Your task to perform on an android device: Open Wikipedia Image 0: 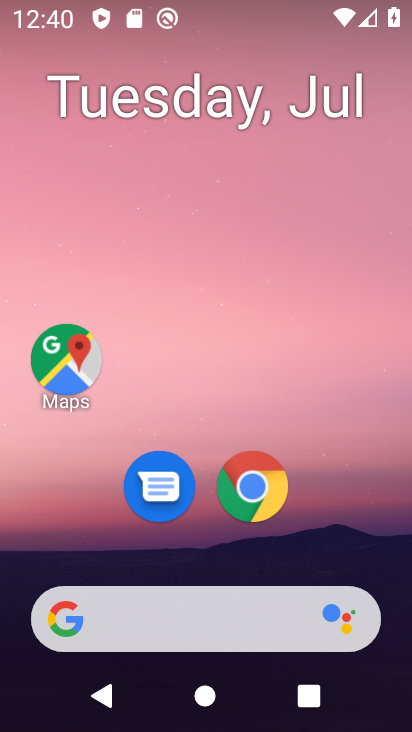
Step 0: drag from (372, 459) to (375, 83)
Your task to perform on an android device: Open Wikipedia Image 1: 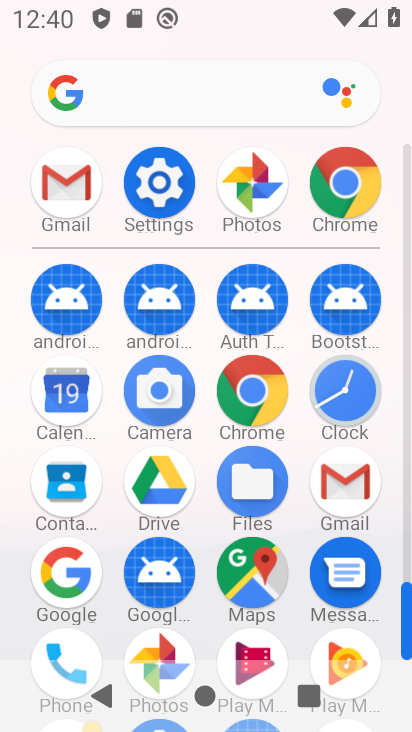
Step 1: click (271, 394)
Your task to perform on an android device: Open Wikipedia Image 2: 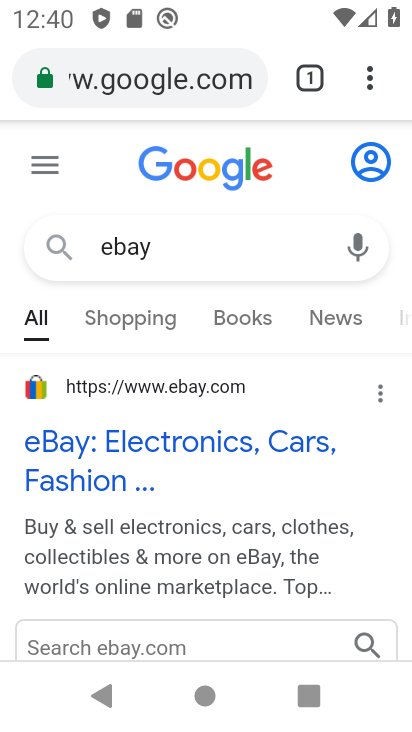
Step 2: click (192, 80)
Your task to perform on an android device: Open Wikipedia Image 3: 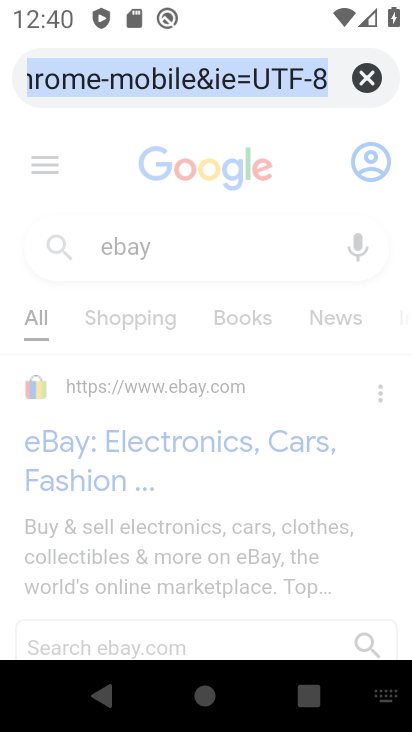
Step 3: type "wikipedia"
Your task to perform on an android device: Open Wikipedia Image 4: 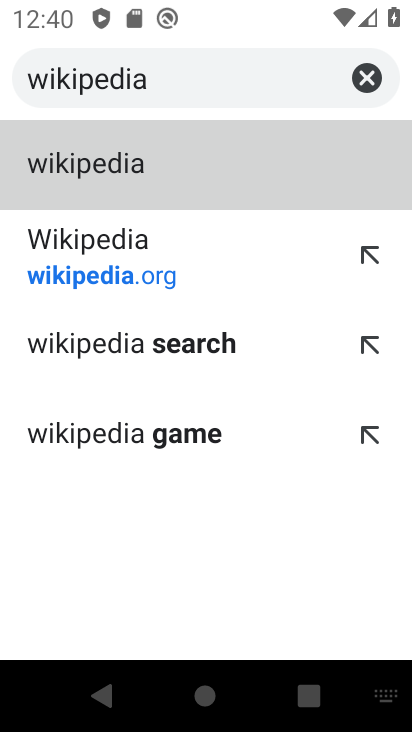
Step 4: click (283, 181)
Your task to perform on an android device: Open Wikipedia Image 5: 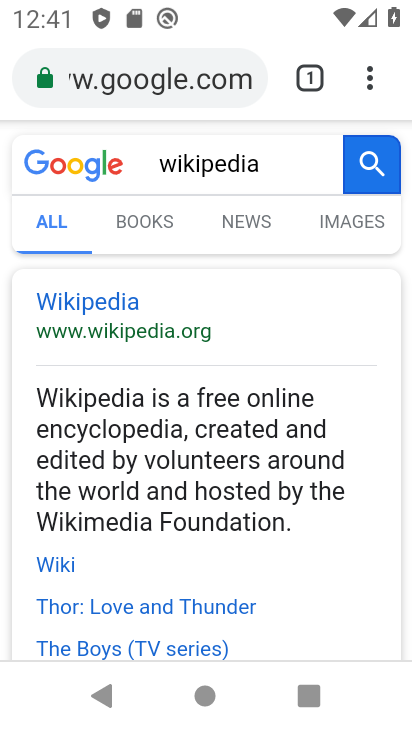
Step 5: task complete